Your task to perform on an android device: change text size in settings app Image 0: 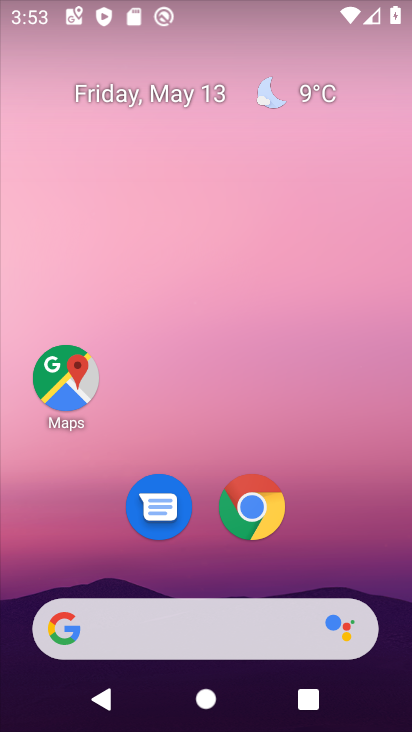
Step 0: drag from (359, 540) to (323, 4)
Your task to perform on an android device: change text size in settings app Image 1: 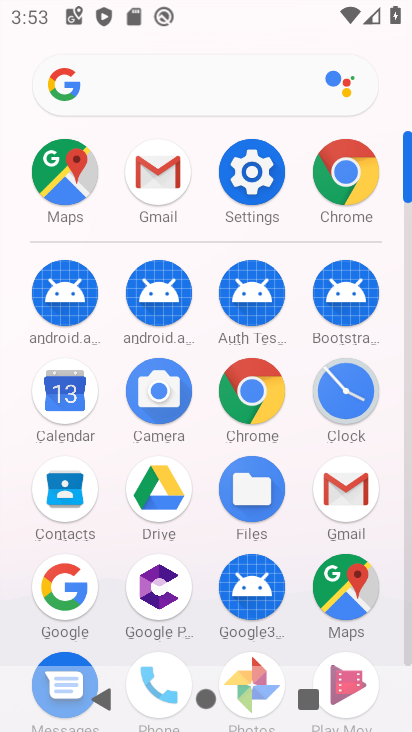
Step 1: click (259, 203)
Your task to perform on an android device: change text size in settings app Image 2: 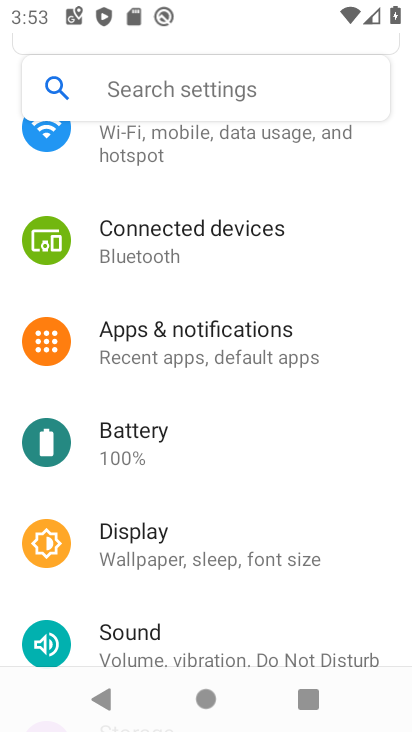
Step 2: click (149, 564)
Your task to perform on an android device: change text size in settings app Image 3: 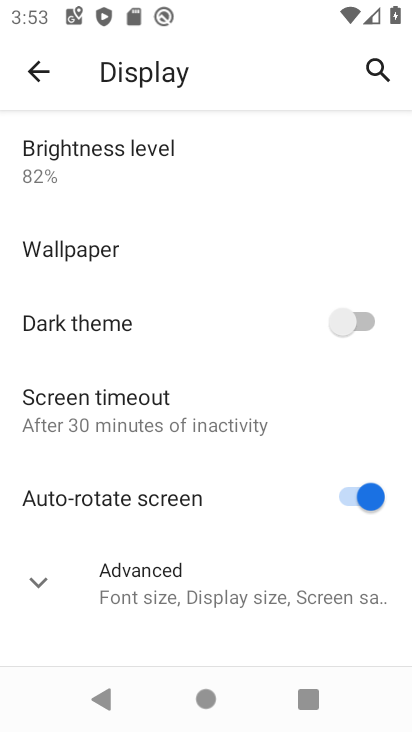
Step 3: click (156, 599)
Your task to perform on an android device: change text size in settings app Image 4: 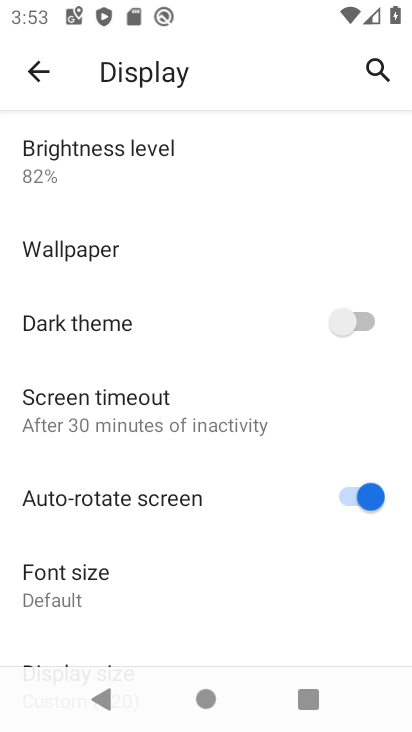
Step 4: drag from (110, 618) to (83, 284)
Your task to perform on an android device: change text size in settings app Image 5: 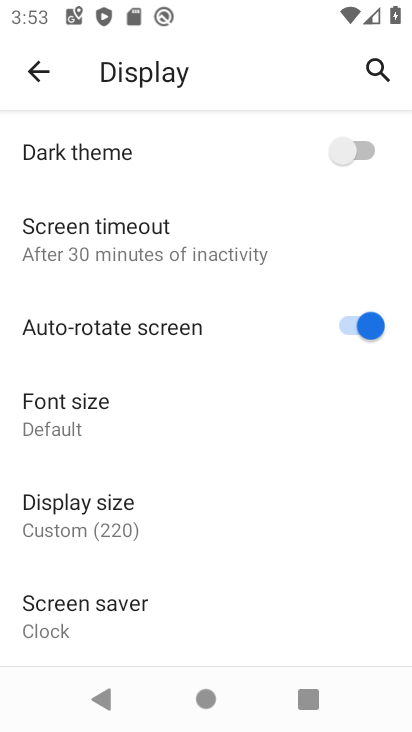
Step 5: click (78, 422)
Your task to perform on an android device: change text size in settings app Image 6: 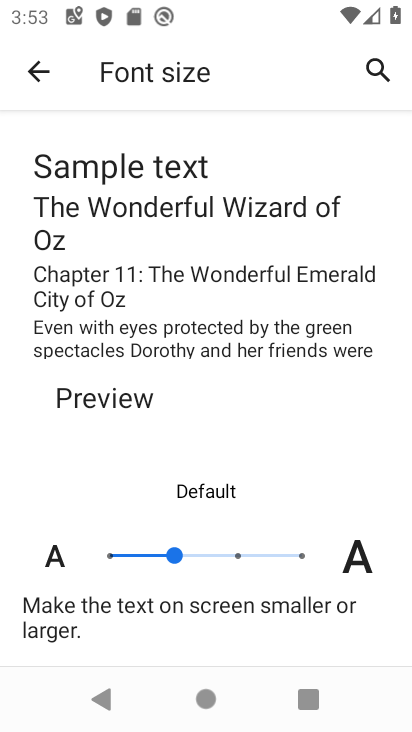
Step 6: click (208, 555)
Your task to perform on an android device: change text size in settings app Image 7: 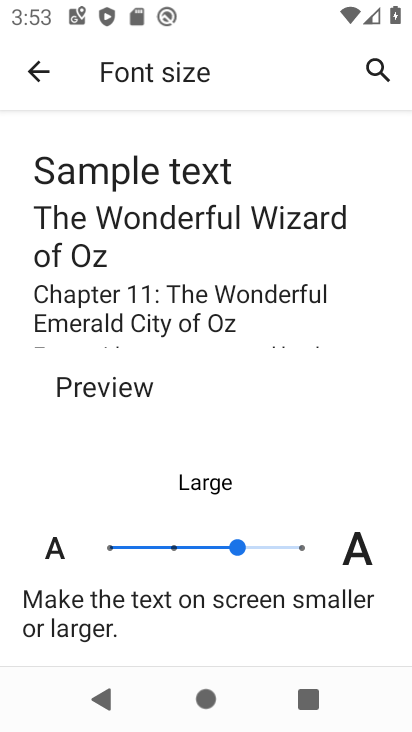
Step 7: task complete